Your task to perform on an android device: toggle wifi Image 0: 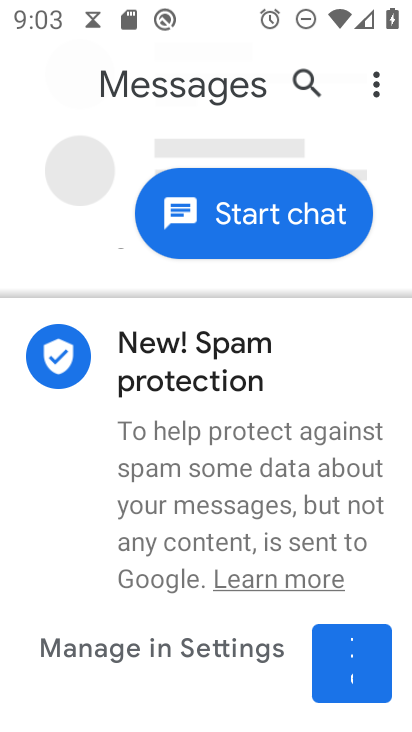
Step 0: press home button
Your task to perform on an android device: toggle wifi Image 1: 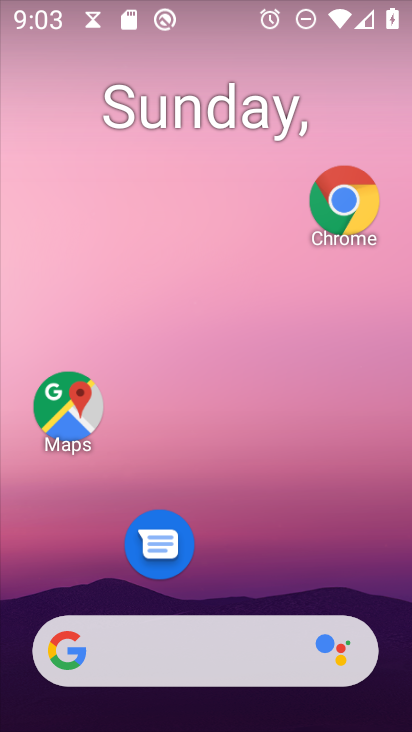
Step 1: drag from (286, 592) to (290, 62)
Your task to perform on an android device: toggle wifi Image 2: 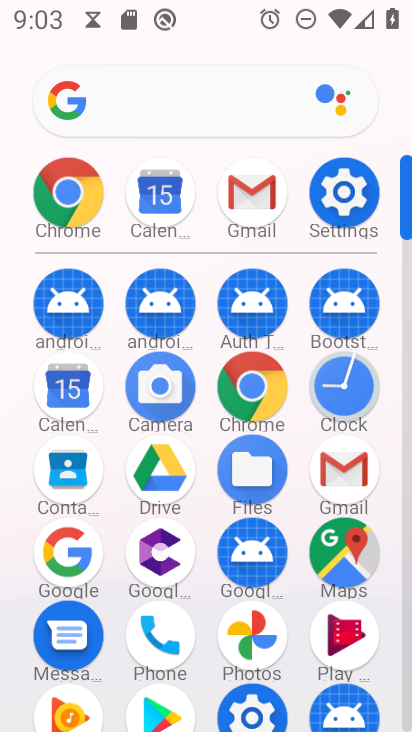
Step 2: click (343, 208)
Your task to perform on an android device: toggle wifi Image 3: 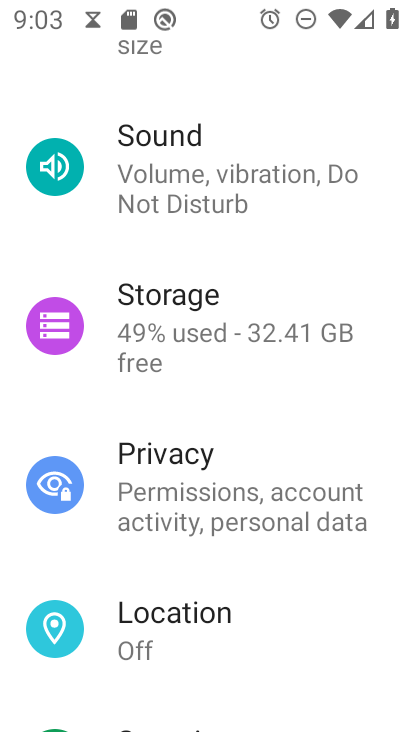
Step 3: drag from (256, 202) to (287, 403)
Your task to perform on an android device: toggle wifi Image 4: 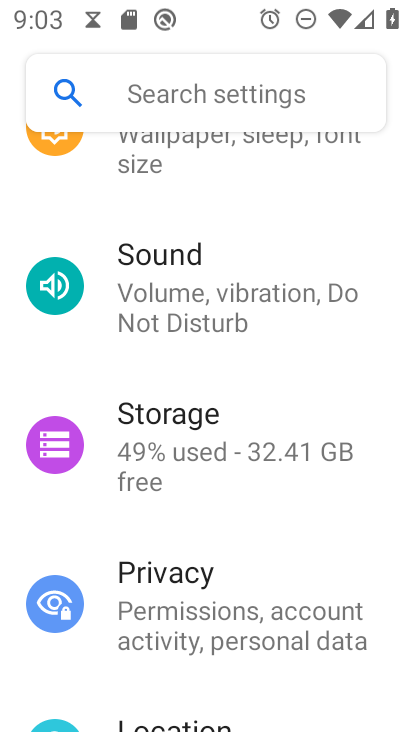
Step 4: drag from (253, 251) to (266, 474)
Your task to perform on an android device: toggle wifi Image 5: 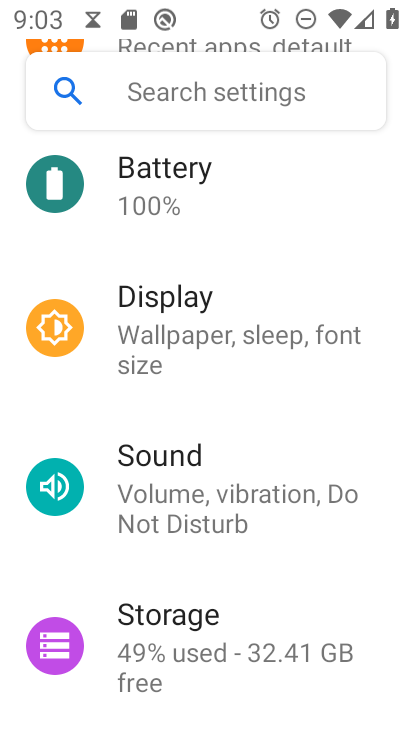
Step 5: drag from (211, 311) to (285, 502)
Your task to perform on an android device: toggle wifi Image 6: 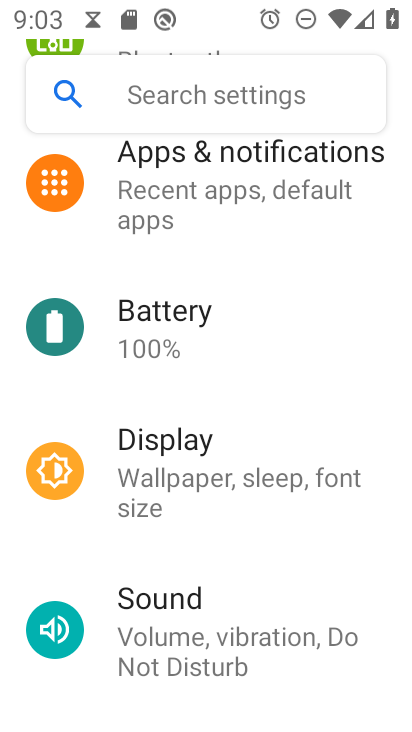
Step 6: drag from (244, 257) to (270, 502)
Your task to perform on an android device: toggle wifi Image 7: 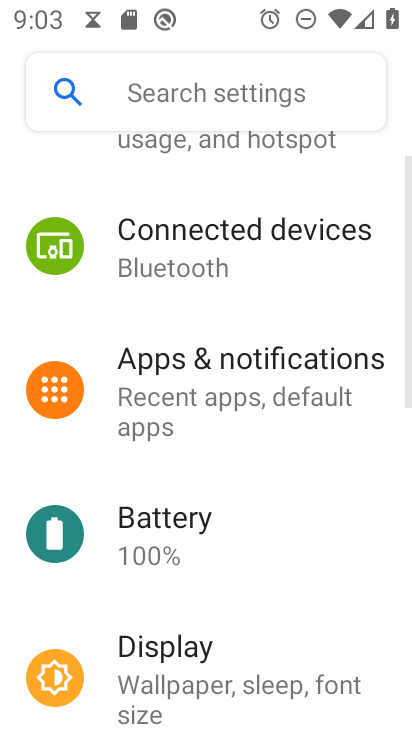
Step 7: drag from (252, 268) to (278, 434)
Your task to perform on an android device: toggle wifi Image 8: 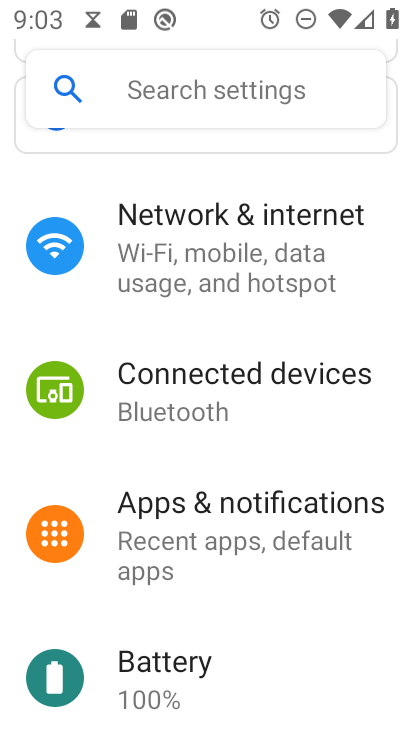
Step 8: click (227, 263)
Your task to perform on an android device: toggle wifi Image 9: 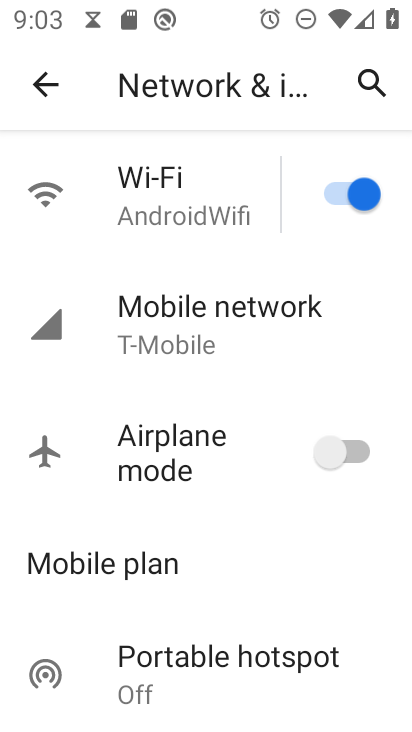
Step 9: click (367, 195)
Your task to perform on an android device: toggle wifi Image 10: 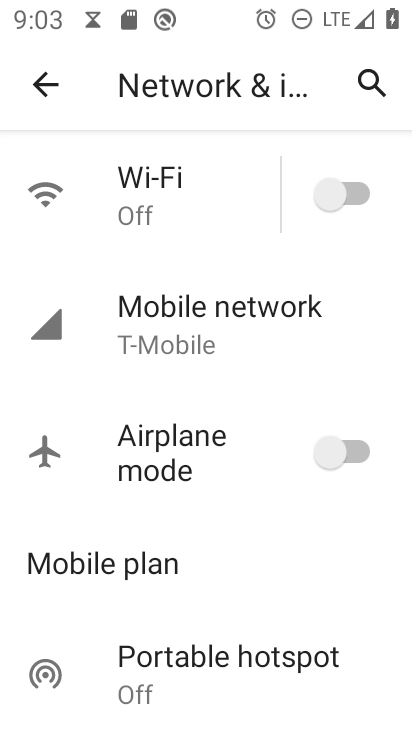
Step 10: task complete